Your task to perform on an android device: Open Google Maps Image 0: 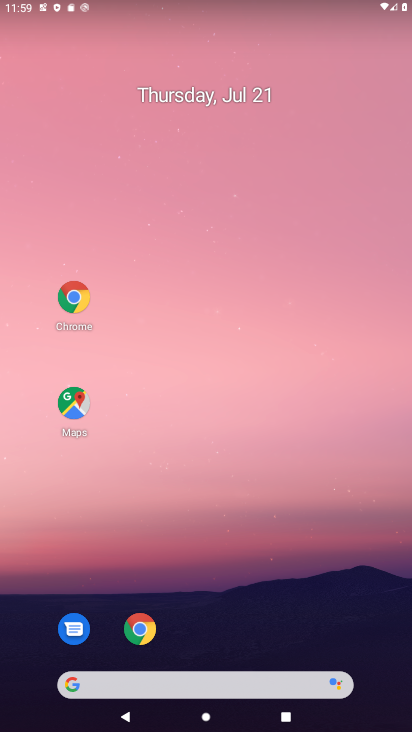
Step 0: drag from (215, 416) to (194, 192)
Your task to perform on an android device: Open Google Maps Image 1: 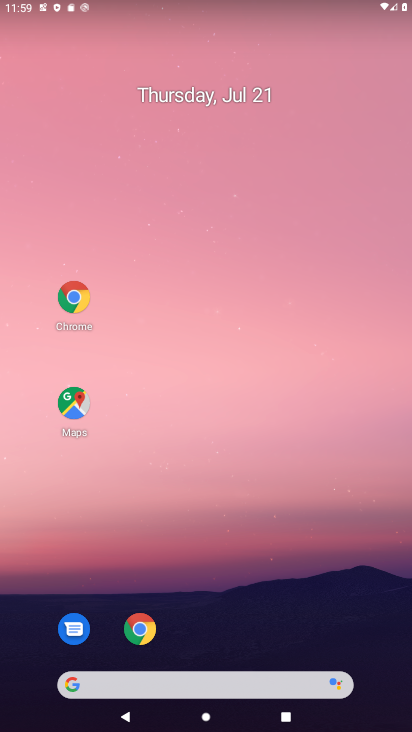
Step 1: drag from (230, 512) to (229, 144)
Your task to perform on an android device: Open Google Maps Image 2: 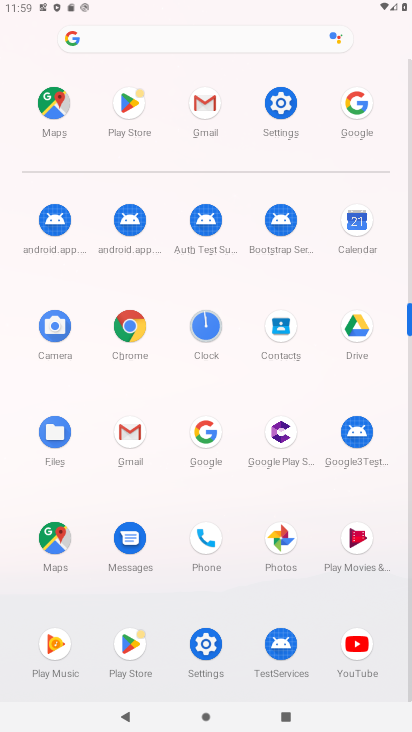
Step 2: click (53, 527)
Your task to perform on an android device: Open Google Maps Image 3: 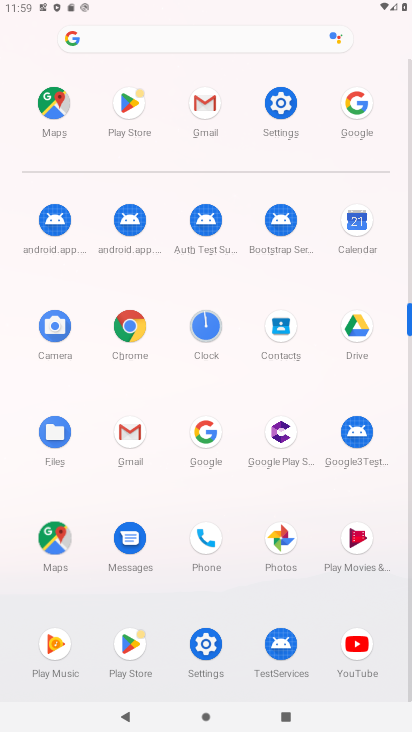
Step 3: click (53, 527)
Your task to perform on an android device: Open Google Maps Image 4: 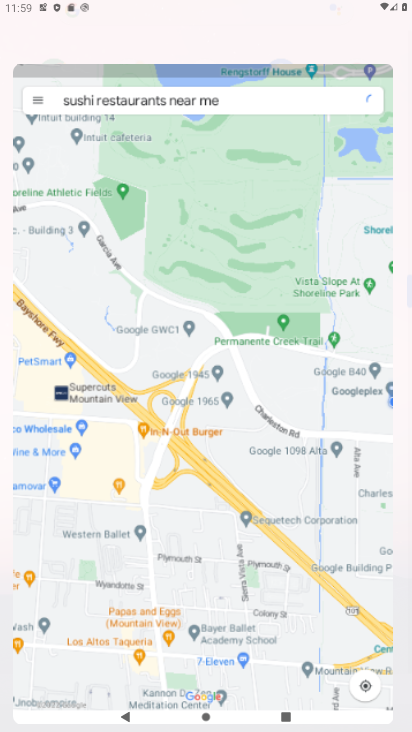
Step 4: click (56, 529)
Your task to perform on an android device: Open Google Maps Image 5: 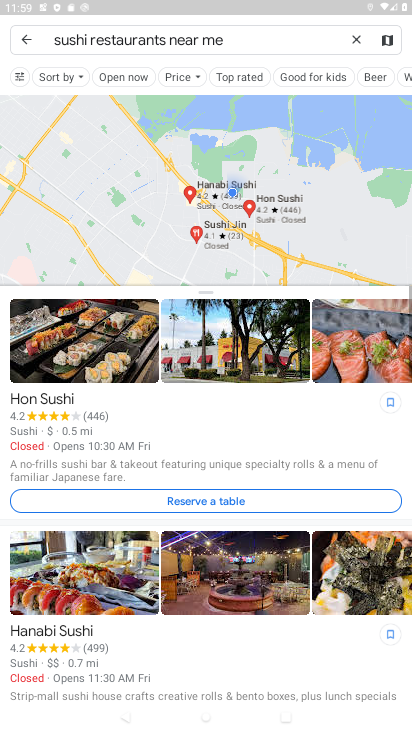
Step 5: task complete